Your task to perform on an android device: Is it going to rain tomorrow? Image 0: 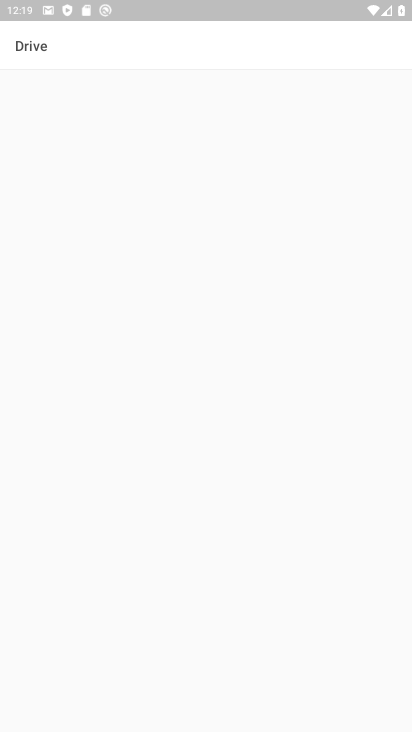
Step 0: press home button
Your task to perform on an android device: Is it going to rain tomorrow? Image 1: 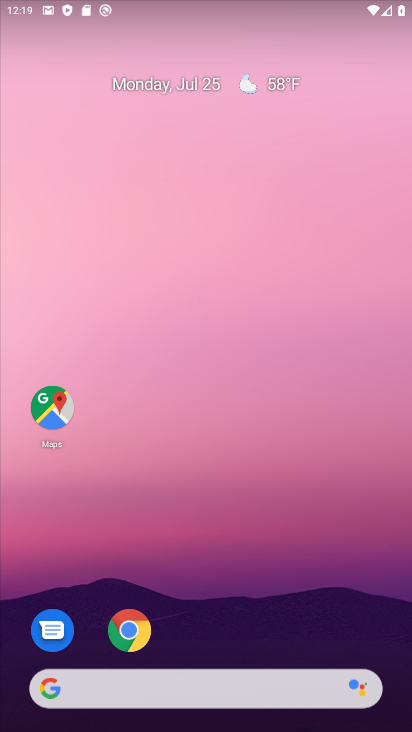
Step 1: drag from (233, 641) to (257, 73)
Your task to perform on an android device: Is it going to rain tomorrow? Image 2: 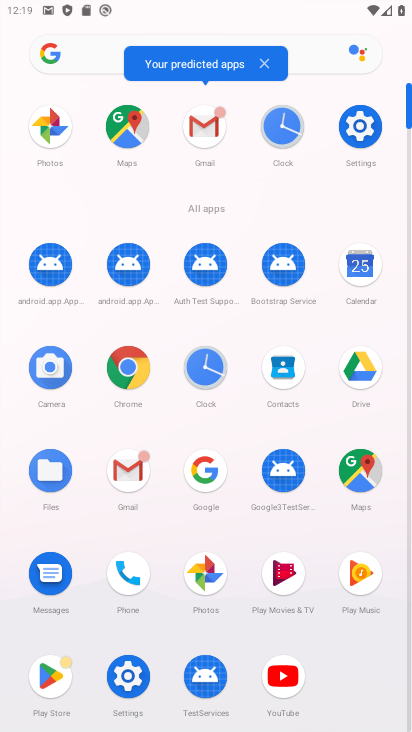
Step 2: click (130, 360)
Your task to perform on an android device: Is it going to rain tomorrow? Image 3: 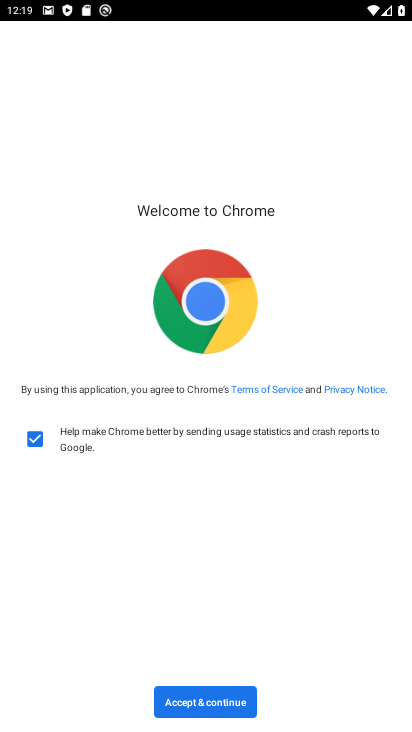
Step 3: click (233, 706)
Your task to perform on an android device: Is it going to rain tomorrow? Image 4: 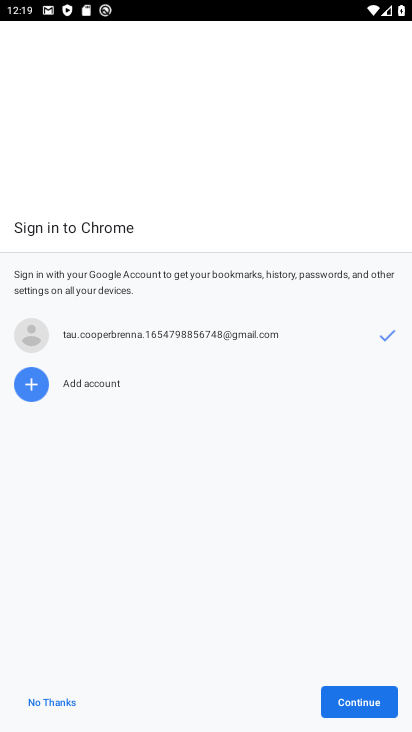
Step 4: click (340, 703)
Your task to perform on an android device: Is it going to rain tomorrow? Image 5: 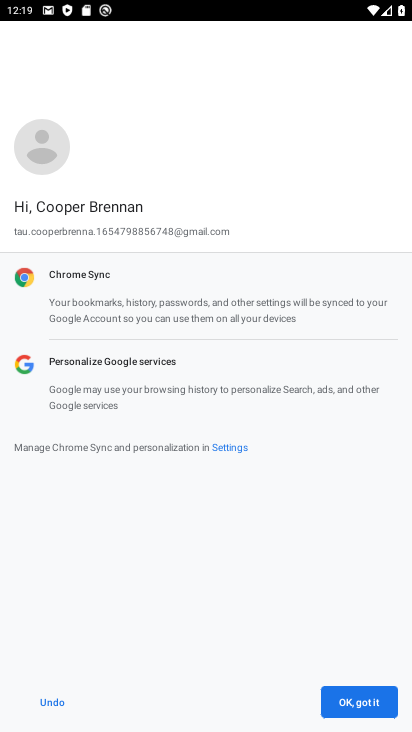
Step 5: click (340, 703)
Your task to perform on an android device: Is it going to rain tomorrow? Image 6: 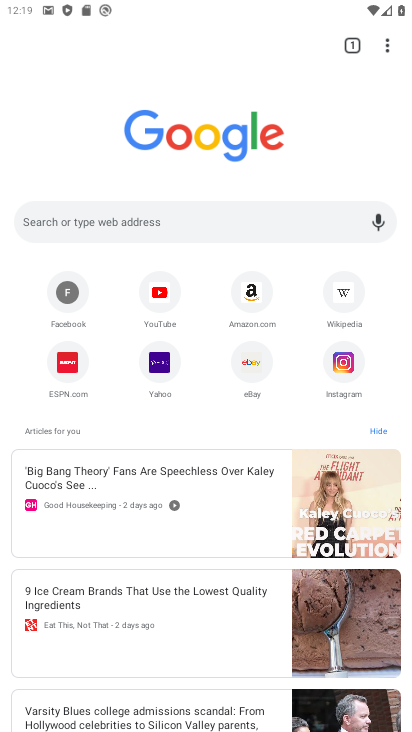
Step 6: click (207, 222)
Your task to perform on an android device: Is it going to rain tomorrow? Image 7: 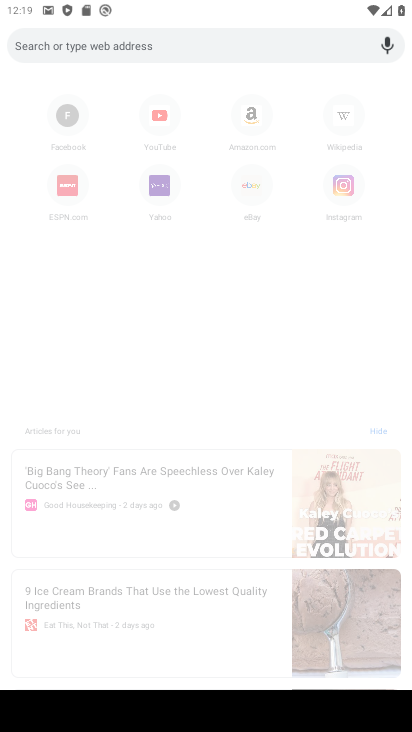
Step 7: click (210, 50)
Your task to perform on an android device: Is it going to rain tomorrow? Image 8: 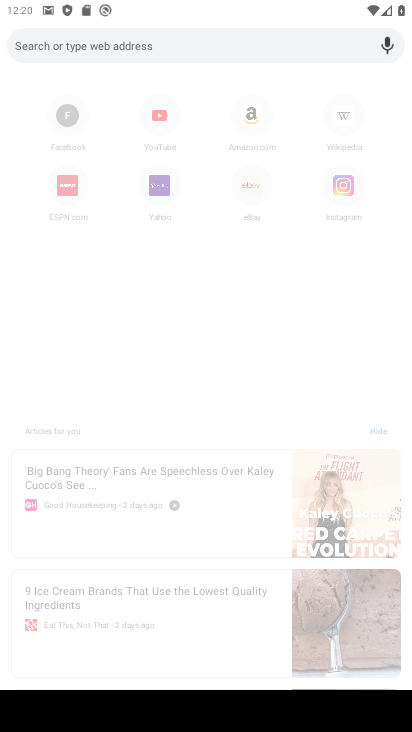
Step 8: type "Is it going to rain tomorrow?"
Your task to perform on an android device: Is it going to rain tomorrow? Image 9: 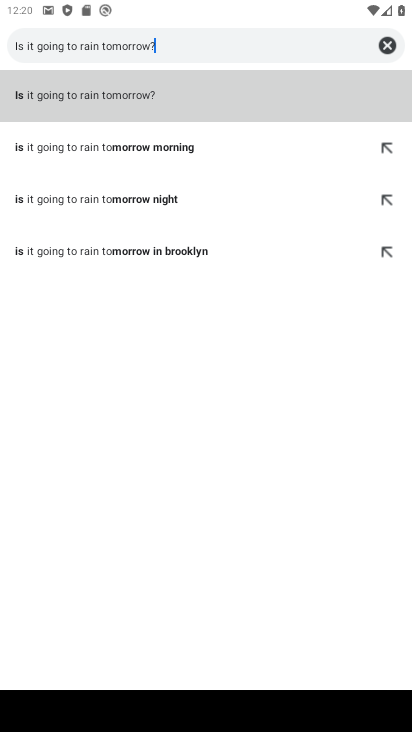
Step 9: click (336, 81)
Your task to perform on an android device: Is it going to rain tomorrow? Image 10: 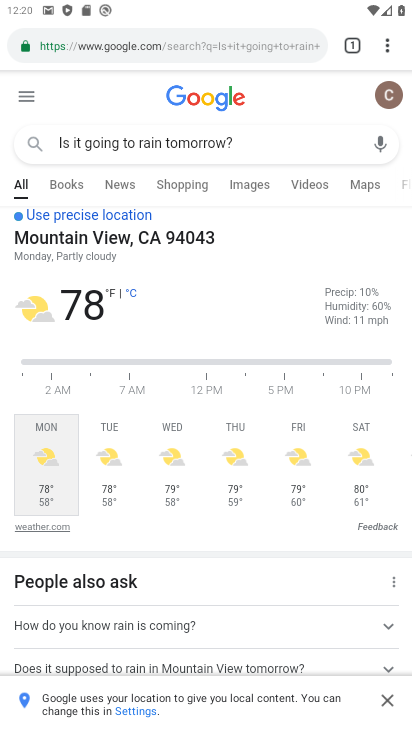
Step 10: task complete